Your task to perform on an android device: turn on location history Image 0: 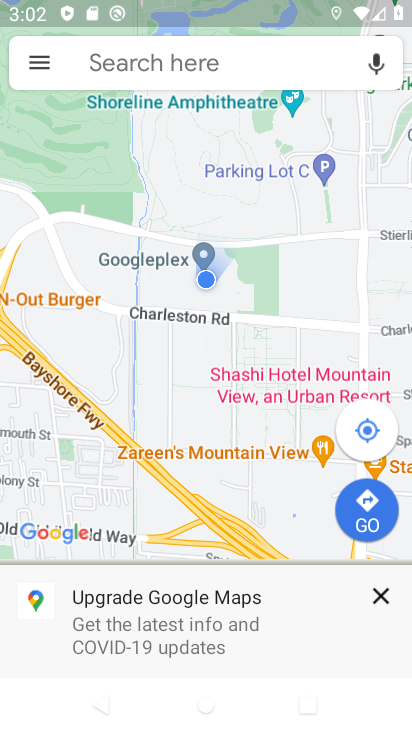
Step 0: press home button
Your task to perform on an android device: turn on location history Image 1: 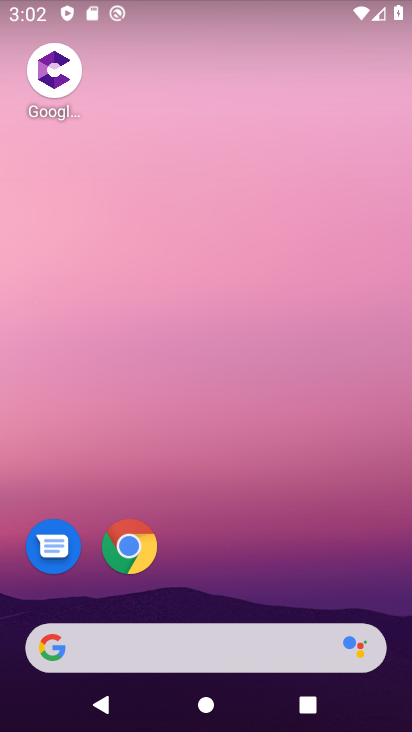
Step 1: drag from (250, 575) to (165, 138)
Your task to perform on an android device: turn on location history Image 2: 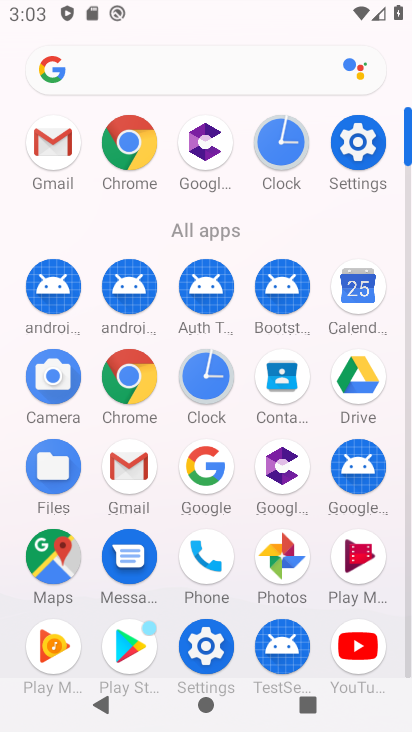
Step 2: click (206, 664)
Your task to perform on an android device: turn on location history Image 3: 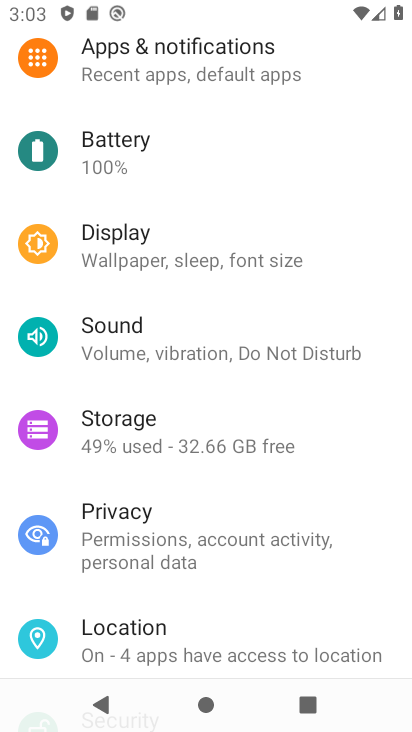
Step 3: click (206, 664)
Your task to perform on an android device: turn on location history Image 4: 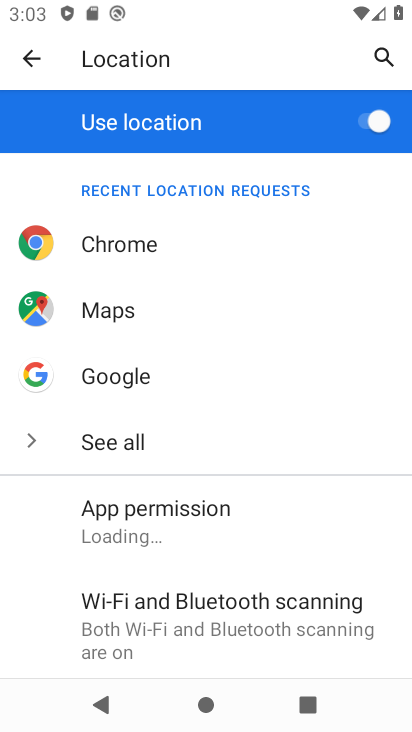
Step 4: drag from (217, 664) to (217, 296)
Your task to perform on an android device: turn on location history Image 5: 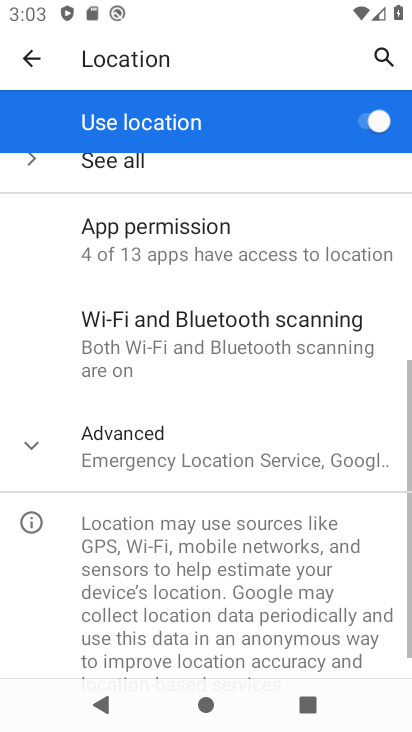
Step 5: click (166, 454)
Your task to perform on an android device: turn on location history Image 6: 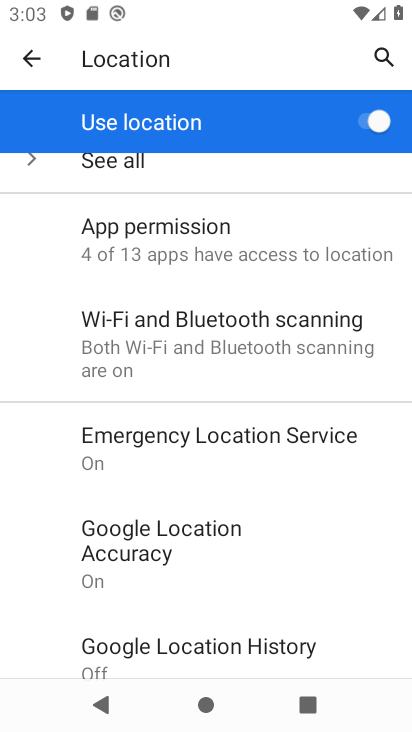
Step 6: click (151, 657)
Your task to perform on an android device: turn on location history Image 7: 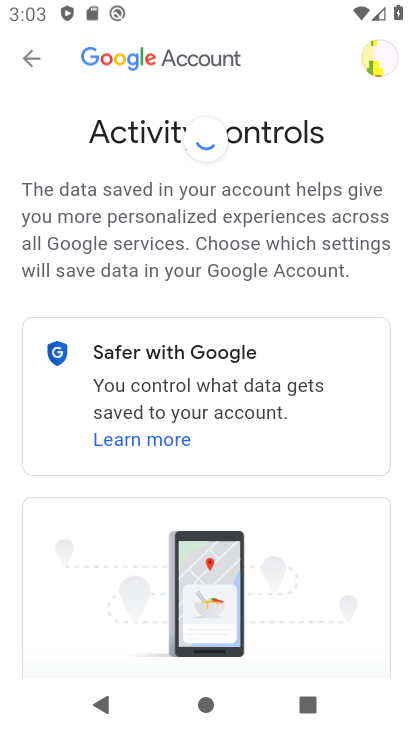
Step 7: drag from (198, 639) to (241, 268)
Your task to perform on an android device: turn on location history Image 8: 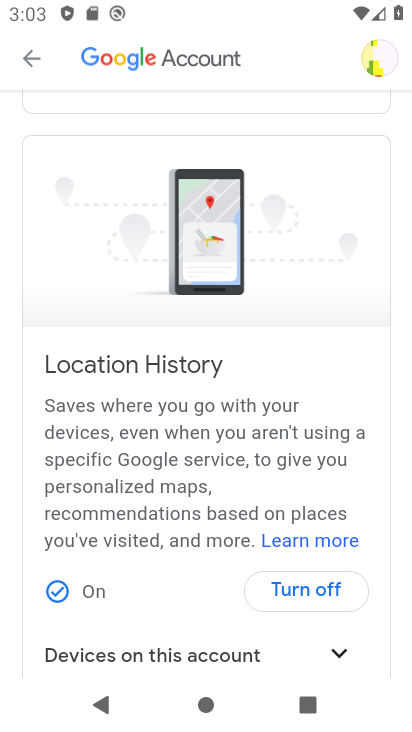
Step 8: click (56, 595)
Your task to perform on an android device: turn on location history Image 9: 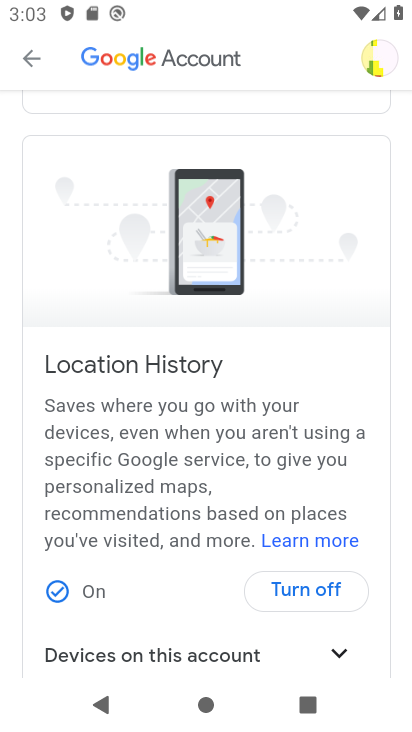
Step 9: click (56, 595)
Your task to perform on an android device: turn on location history Image 10: 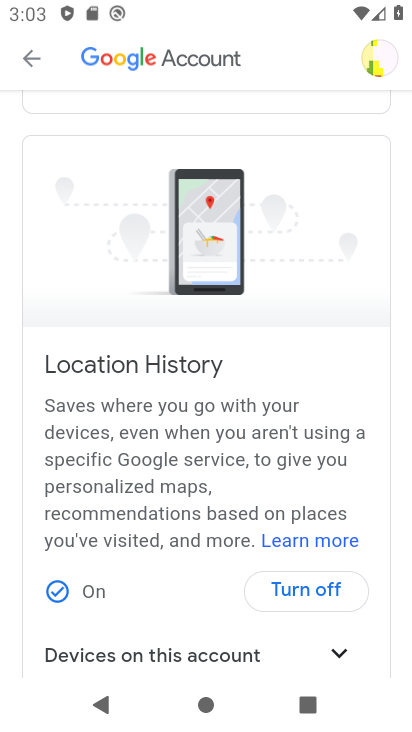
Step 10: click (282, 592)
Your task to perform on an android device: turn on location history Image 11: 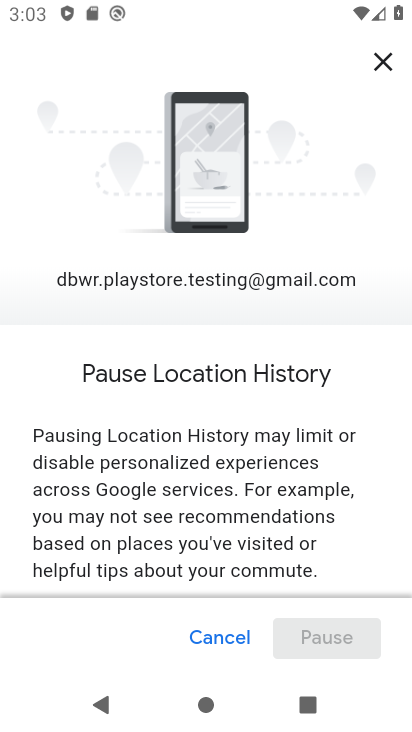
Step 11: drag from (277, 521) to (196, 120)
Your task to perform on an android device: turn on location history Image 12: 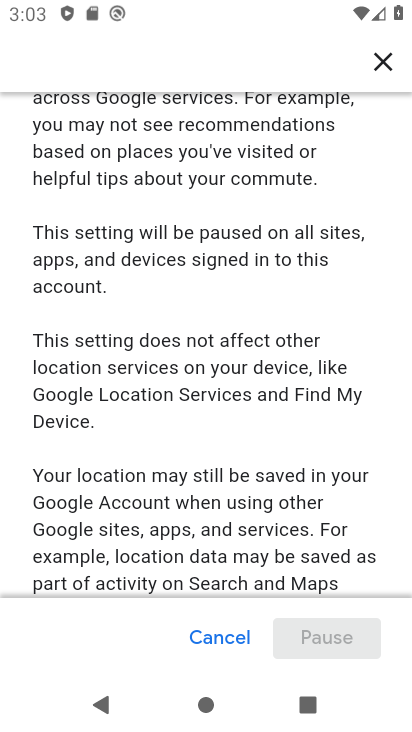
Step 12: drag from (225, 528) to (149, 140)
Your task to perform on an android device: turn on location history Image 13: 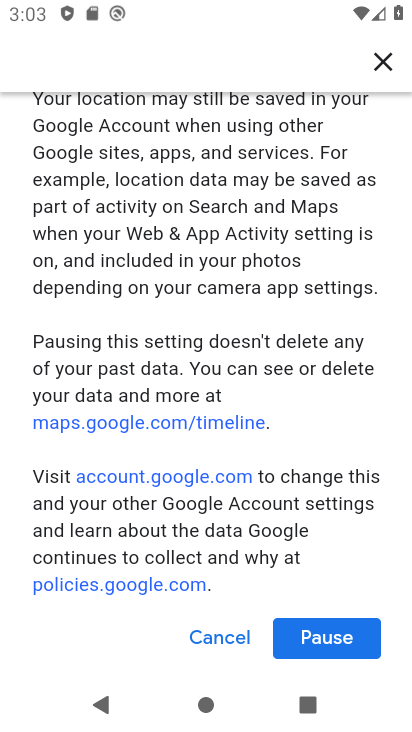
Step 13: click (302, 631)
Your task to perform on an android device: turn on location history Image 14: 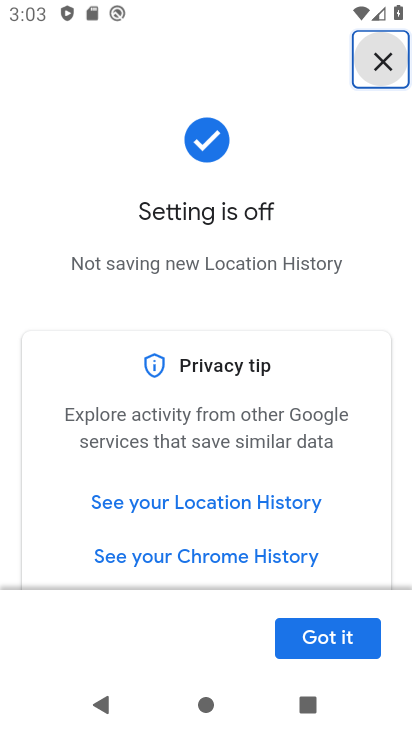
Step 14: click (302, 631)
Your task to perform on an android device: turn on location history Image 15: 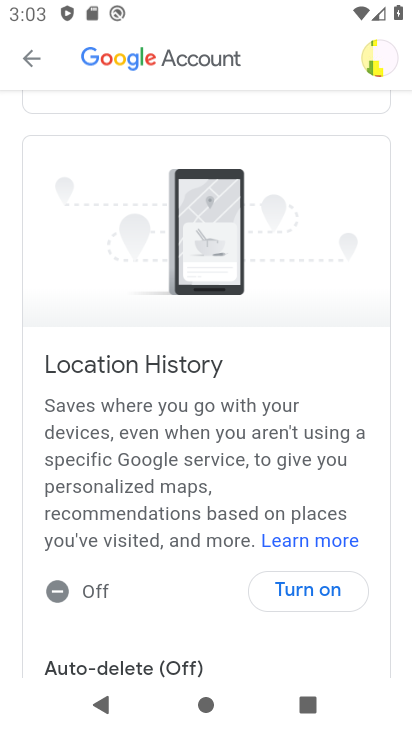
Step 15: click (295, 581)
Your task to perform on an android device: turn on location history Image 16: 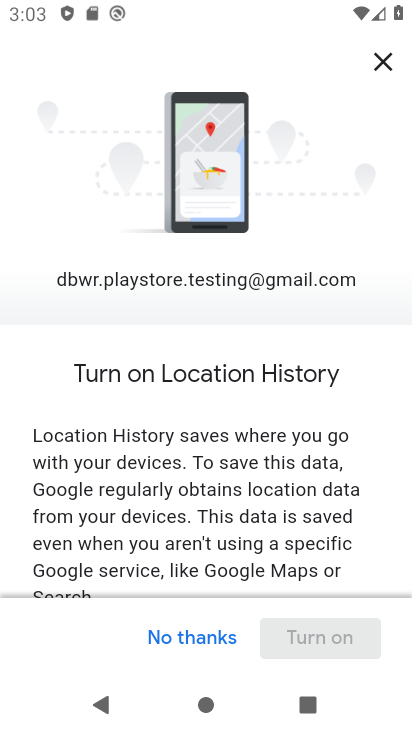
Step 16: drag from (281, 544) to (242, 152)
Your task to perform on an android device: turn on location history Image 17: 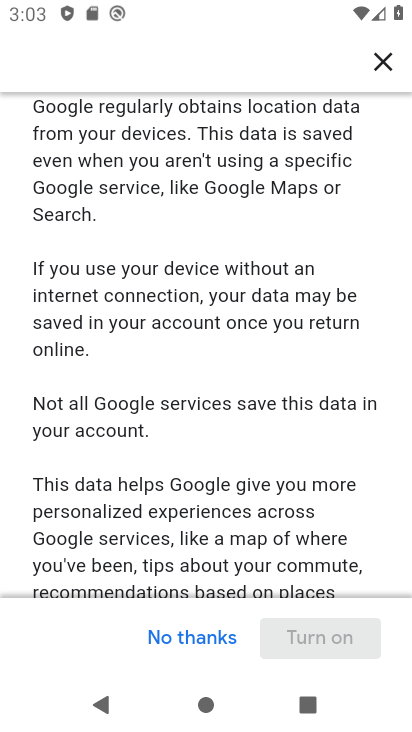
Step 17: drag from (219, 555) to (153, 252)
Your task to perform on an android device: turn on location history Image 18: 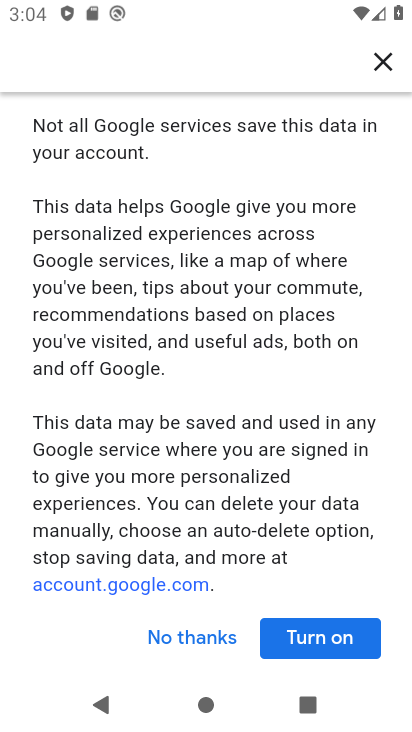
Step 18: click (298, 640)
Your task to perform on an android device: turn on location history Image 19: 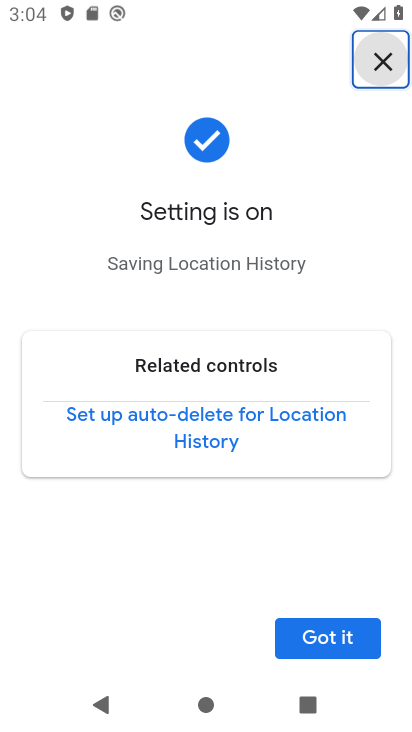
Step 19: click (298, 640)
Your task to perform on an android device: turn on location history Image 20: 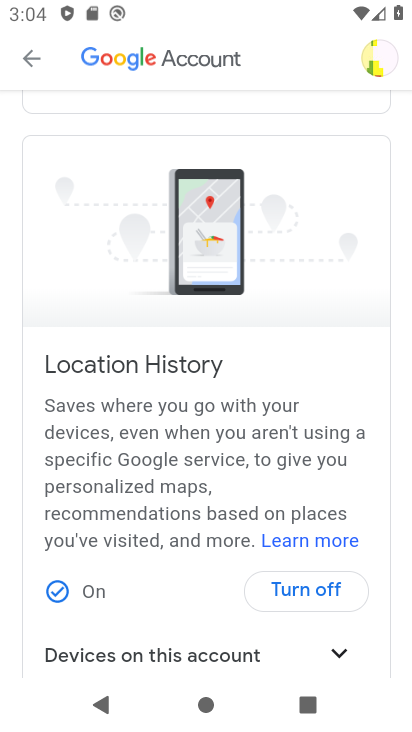
Step 20: task complete